Your task to perform on an android device: turn off picture-in-picture Image 0: 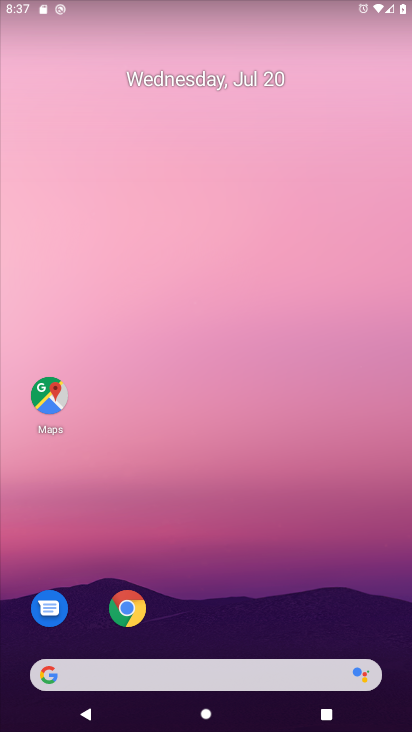
Step 0: drag from (253, 653) to (253, 225)
Your task to perform on an android device: turn off picture-in-picture Image 1: 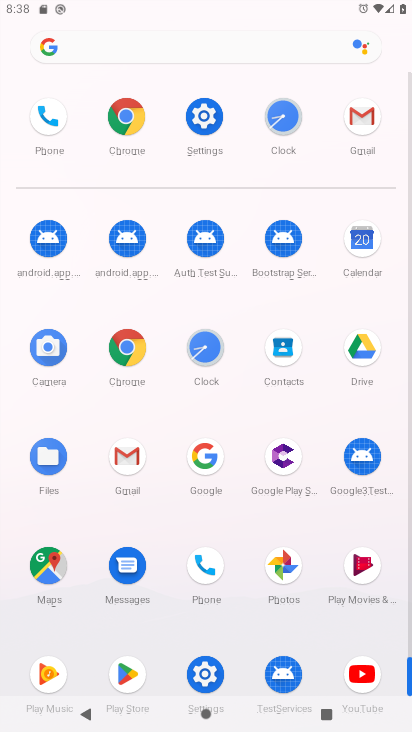
Step 1: click (211, 106)
Your task to perform on an android device: turn off picture-in-picture Image 2: 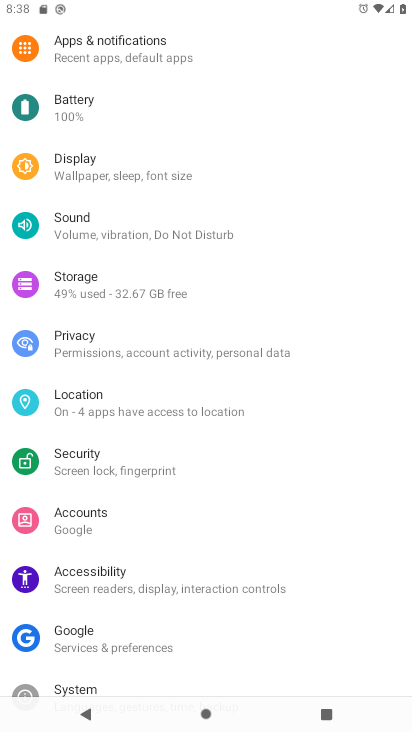
Step 2: drag from (108, 143) to (116, 644)
Your task to perform on an android device: turn off picture-in-picture Image 3: 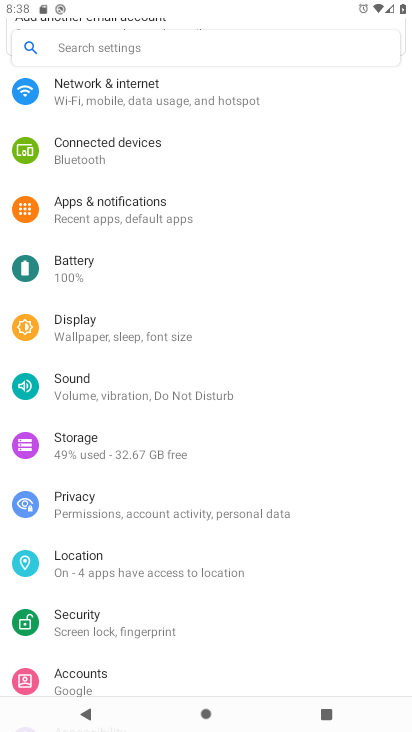
Step 3: drag from (129, 223) to (153, 488)
Your task to perform on an android device: turn off picture-in-picture Image 4: 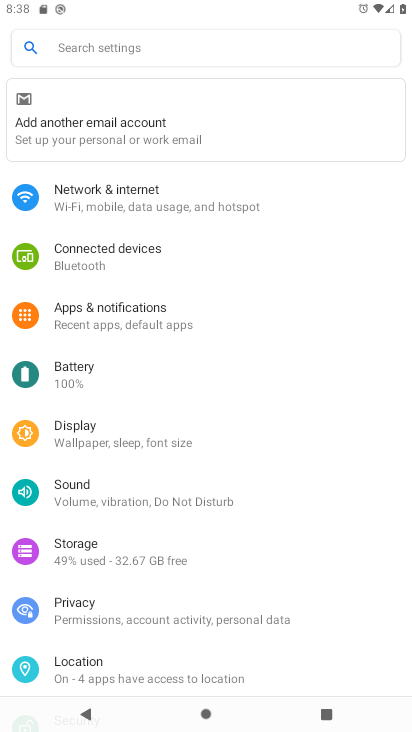
Step 4: click (133, 199)
Your task to perform on an android device: turn off picture-in-picture Image 5: 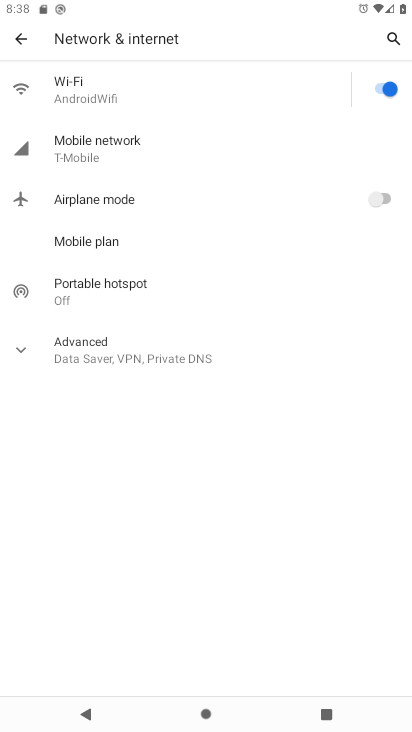
Step 5: click (142, 335)
Your task to perform on an android device: turn off picture-in-picture Image 6: 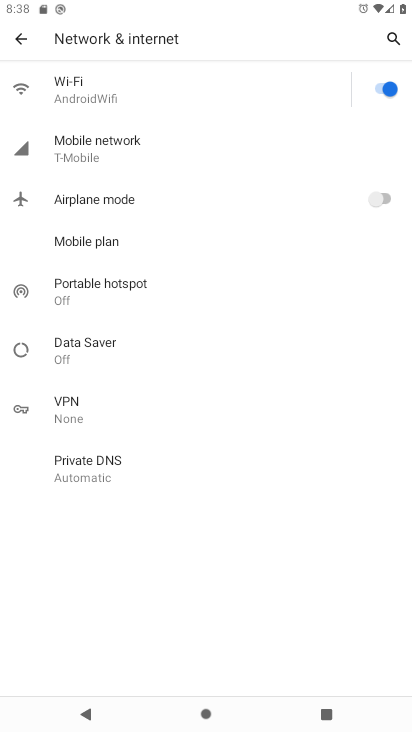
Step 6: click (11, 49)
Your task to perform on an android device: turn off picture-in-picture Image 7: 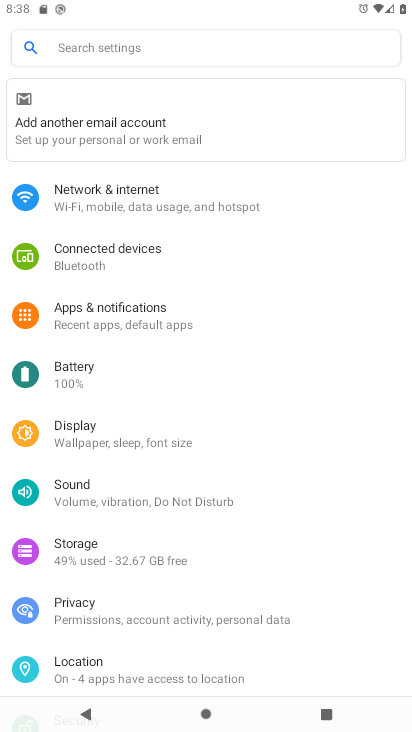
Step 7: click (171, 307)
Your task to perform on an android device: turn off picture-in-picture Image 8: 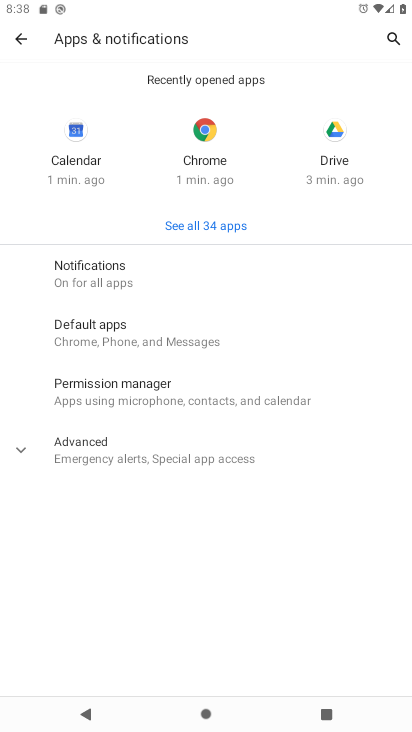
Step 8: click (180, 452)
Your task to perform on an android device: turn off picture-in-picture Image 9: 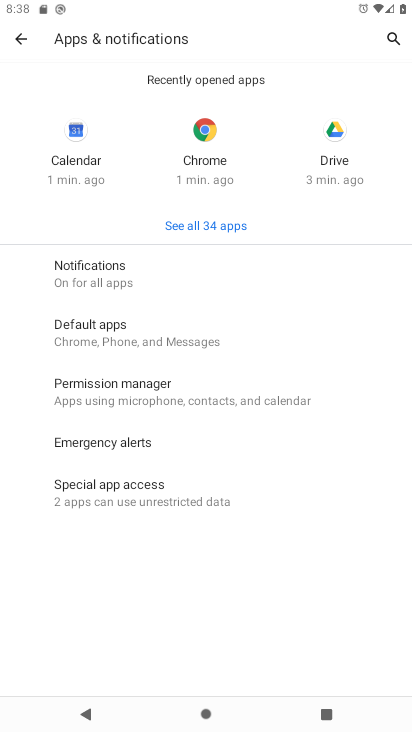
Step 9: click (172, 496)
Your task to perform on an android device: turn off picture-in-picture Image 10: 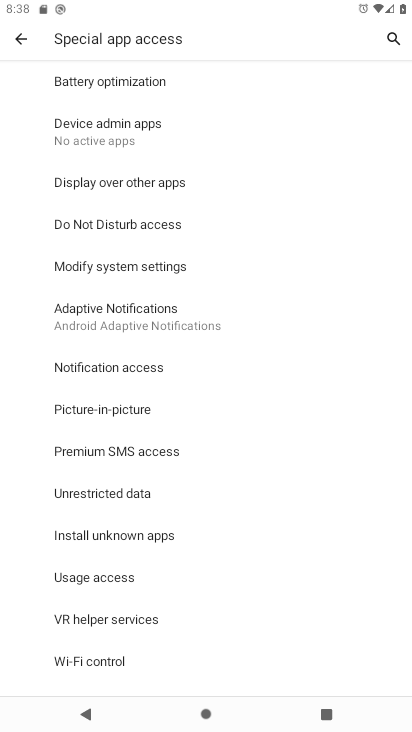
Step 10: click (128, 406)
Your task to perform on an android device: turn off picture-in-picture Image 11: 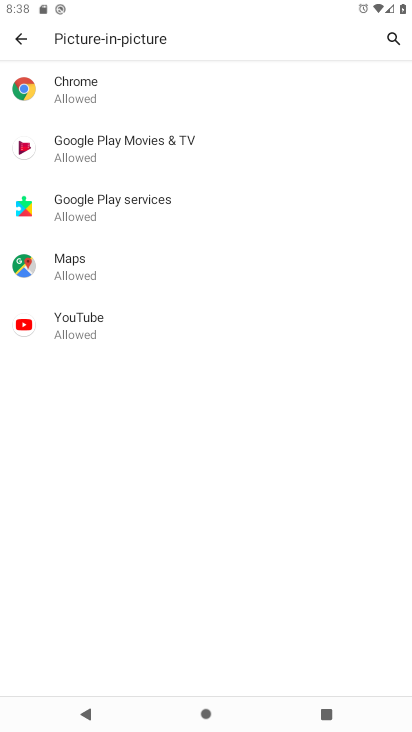
Step 11: click (98, 316)
Your task to perform on an android device: turn off picture-in-picture Image 12: 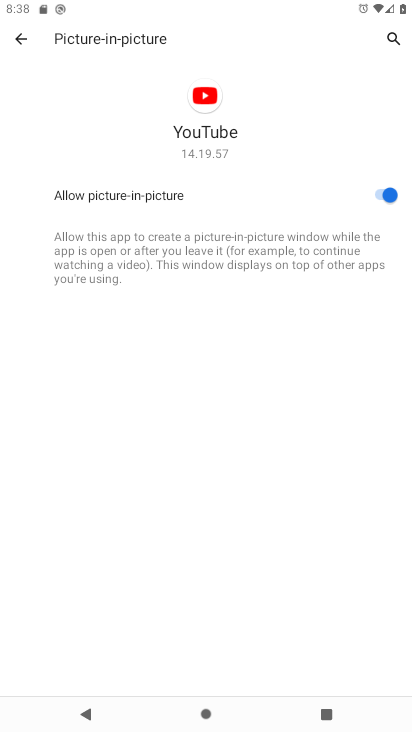
Step 12: click (382, 192)
Your task to perform on an android device: turn off picture-in-picture Image 13: 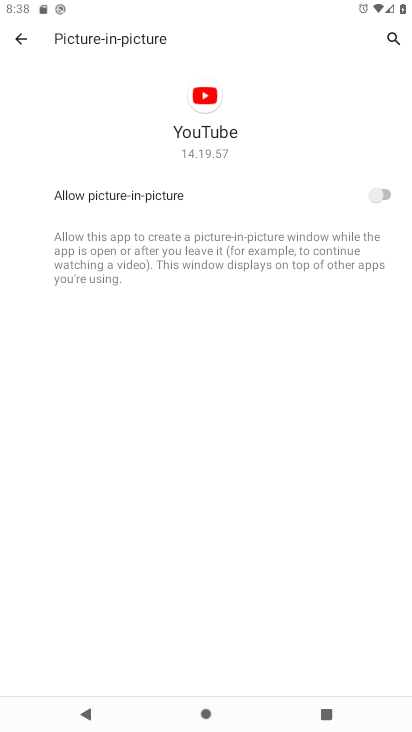
Step 13: task complete